Your task to perform on an android device: add a contact in the contacts app Image 0: 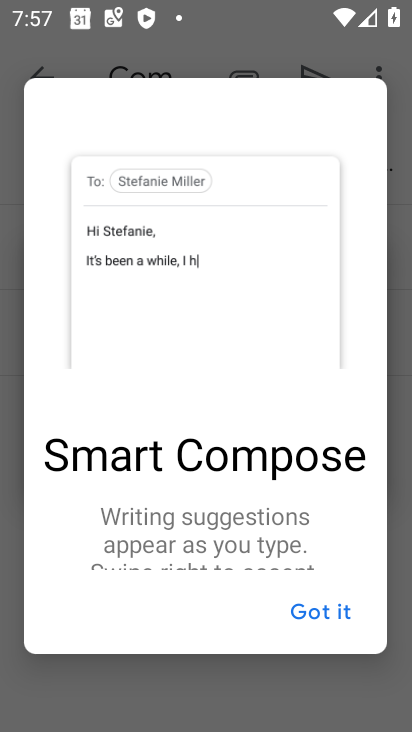
Step 0: press home button
Your task to perform on an android device: add a contact in the contacts app Image 1: 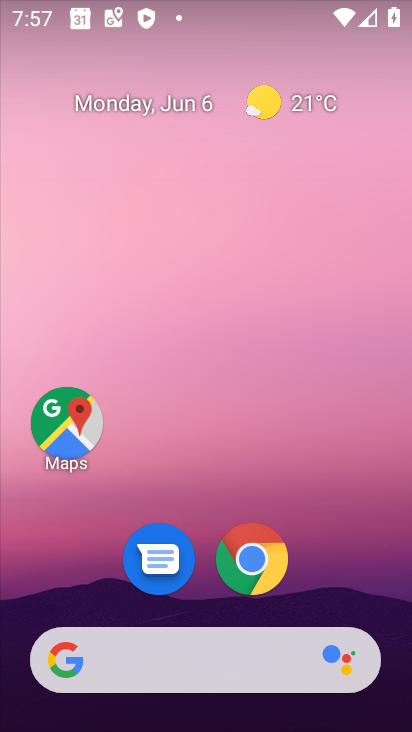
Step 1: drag from (226, 728) to (234, 160)
Your task to perform on an android device: add a contact in the contacts app Image 2: 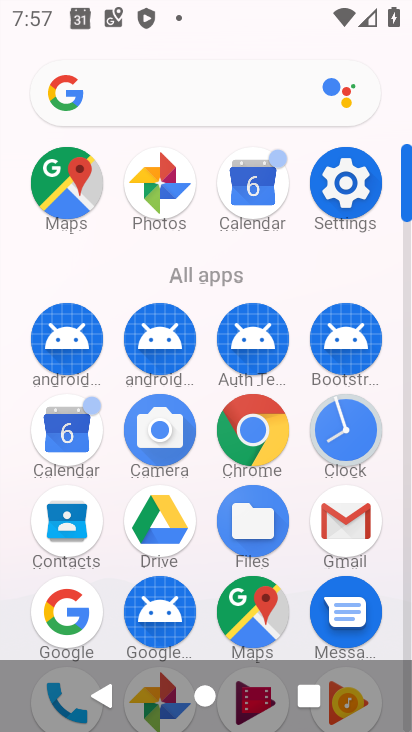
Step 2: click (69, 533)
Your task to perform on an android device: add a contact in the contacts app Image 3: 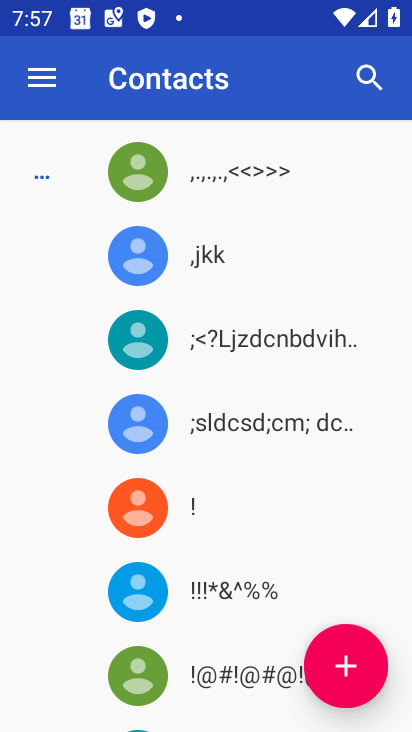
Step 3: click (348, 666)
Your task to perform on an android device: add a contact in the contacts app Image 4: 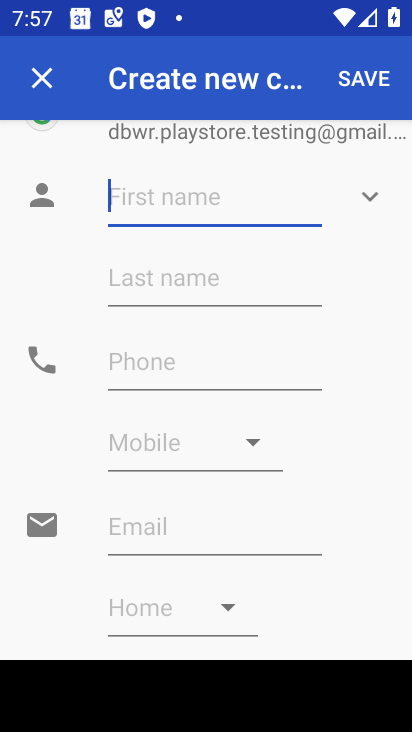
Step 4: type "nojo"
Your task to perform on an android device: add a contact in the contacts app Image 5: 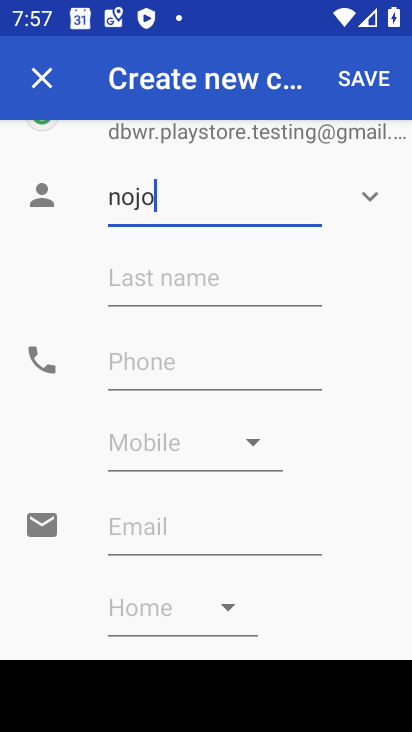
Step 5: click (140, 366)
Your task to perform on an android device: add a contact in the contacts app Image 6: 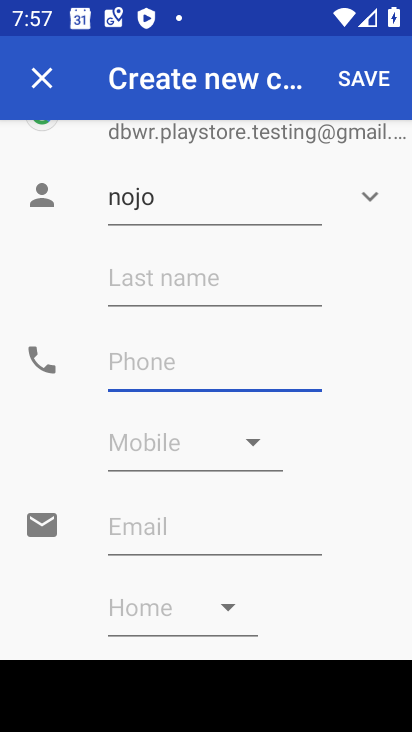
Step 6: type "89898"
Your task to perform on an android device: add a contact in the contacts app Image 7: 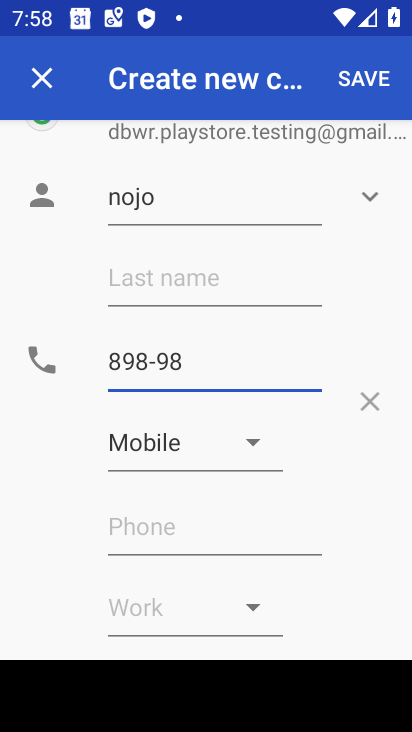
Step 7: click (342, 77)
Your task to perform on an android device: add a contact in the contacts app Image 8: 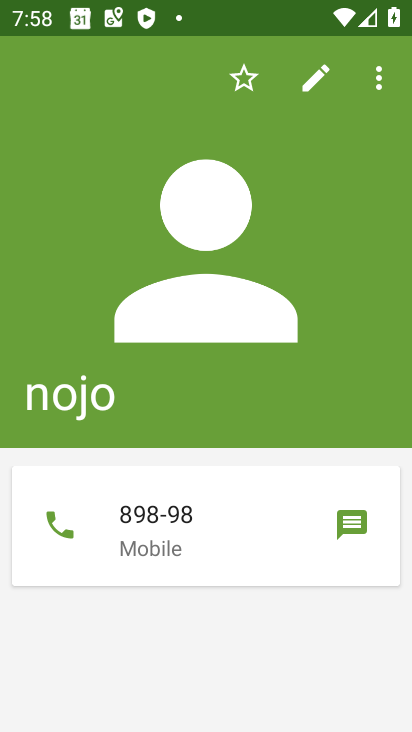
Step 8: task complete